Your task to perform on an android device: Open Youtube and go to "Your channel" Image 0: 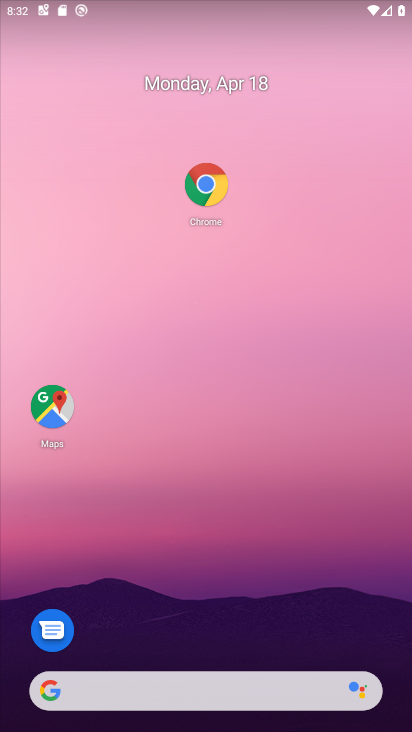
Step 0: drag from (209, 679) to (342, 112)
Your task to perform on an android device: Open Youtube and go to "Your channel" Image 1: 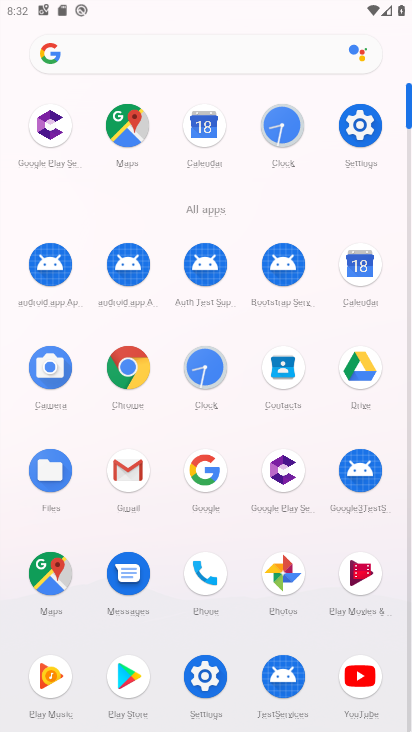
Step 1: click (375, 683)
Your task to perform on an android device: Open Youtube and go to "Your channel" Image 2: 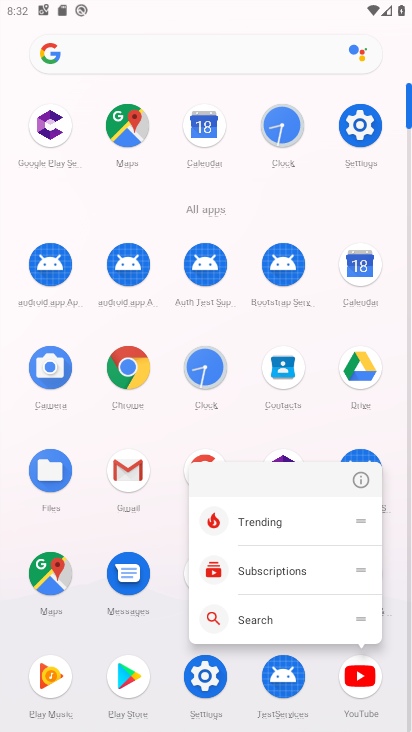
Step 2: click (363, 670)
Your task to perform on an android device: Open Youtube and go to "Your channel" Image 3: 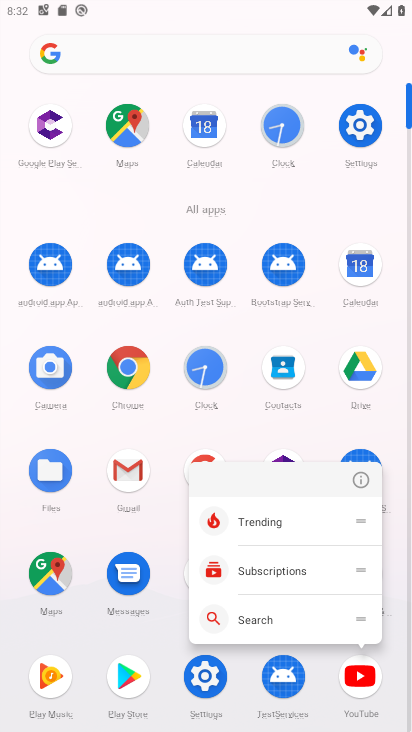
Step 3: click (355, 699)
Your task to perform on an android device: Open Youtube and go to "Your channel" Image 4: 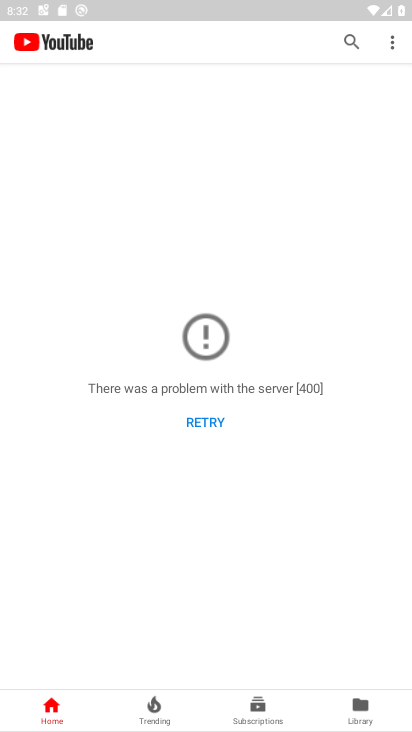
Step 4: click (342, 704)
Your task to perform on an android device: Open Youtube and go to "Your channel" Image 5: 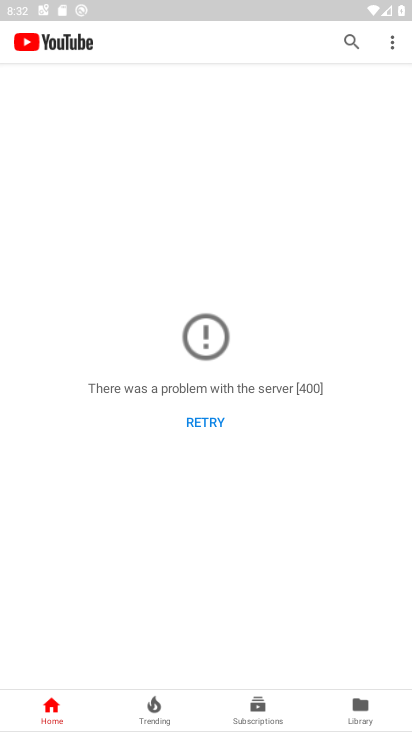
Step 5: click (352, 707)
Your task to perform on an android device: Open Youtube and go to "Your channel" Image 6: 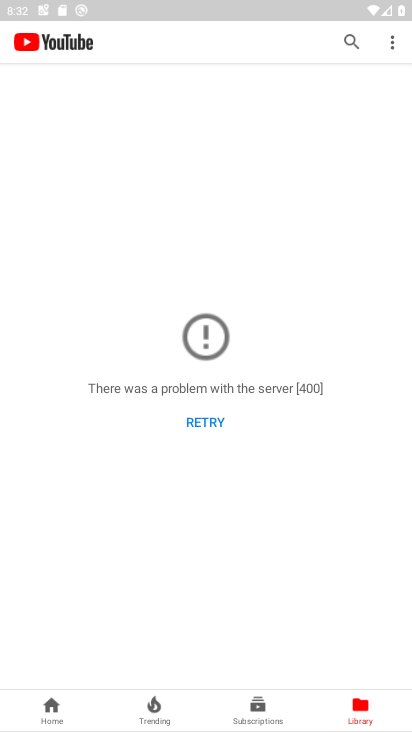
Step 6: click (381, 725)
Your task to perform on an android device: Open Youtube and go to "Your channel" Image 7: 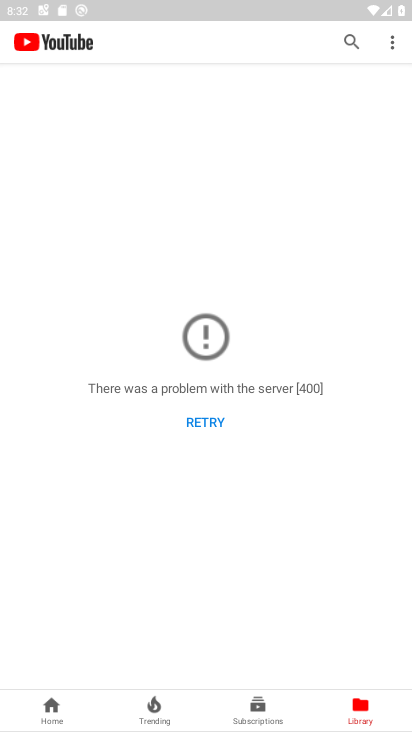
Step 7: click (367, 708)
Your task to perform on an android device: Open Youtube and go to "Your channel" Image 8: 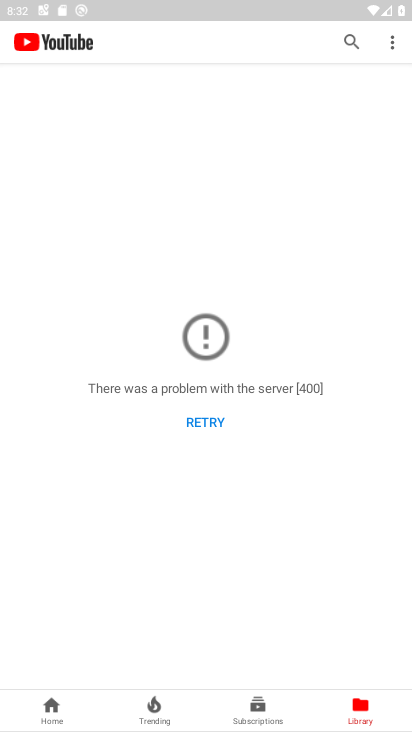
Step 8: click (394, 42)
Your task to perform on an android device: Open Youtube and go to "Your channel" Image 9: 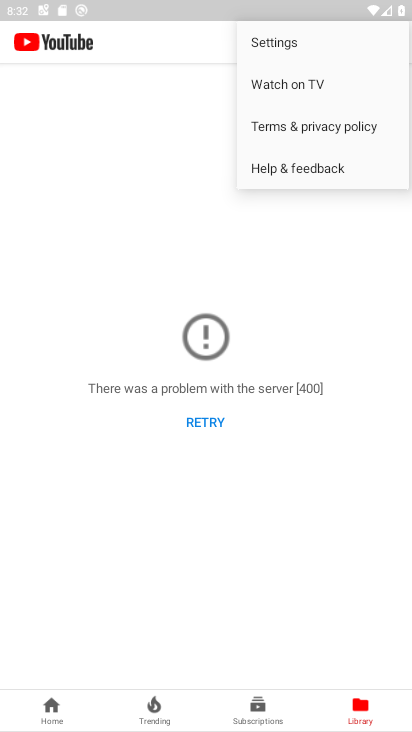
Step 9: click (312, 357)
Your task to perform on an android device: Open Youtube and go to "Your channel" Image 10: 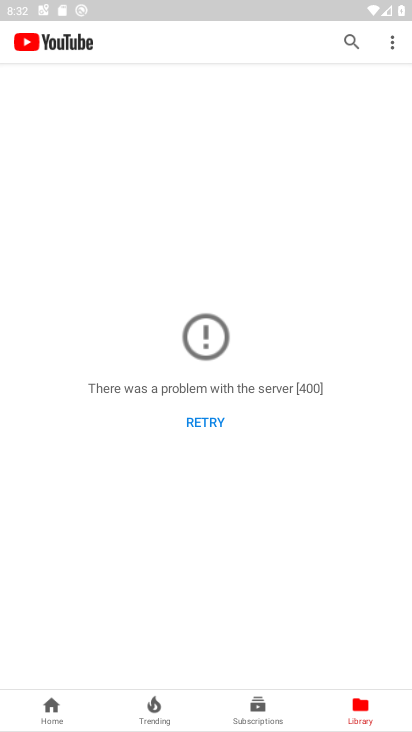
Step 10: task complete